Your task to perform on an android device: remove spam from my inbox in the gmail app Image 0: 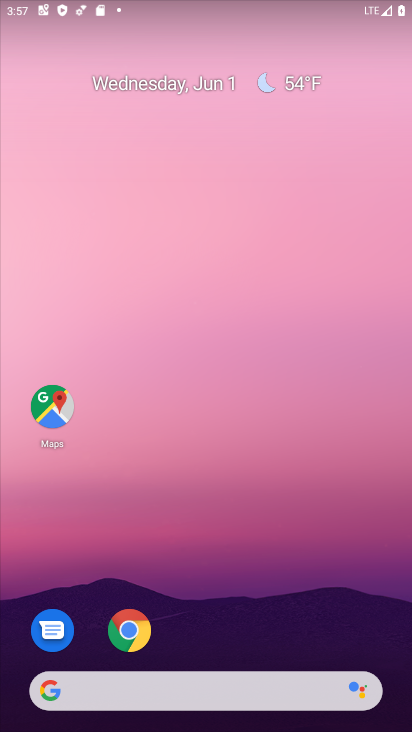
Step 0: drag from (285, 488) to (249, 62)
Your task to perform on an android device: remove spam from my inbox in the gmail app Image 1: 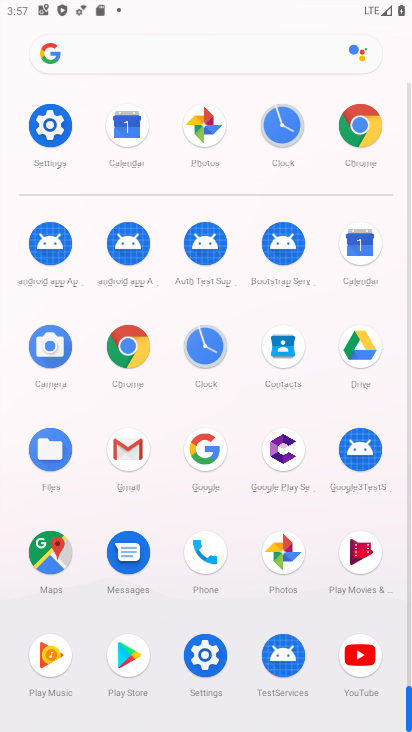
Step 1: drag from (16, 578) to (16, 211)
Your task to perform on an android device: remove spam from my inbox in the gmail app Image 2: 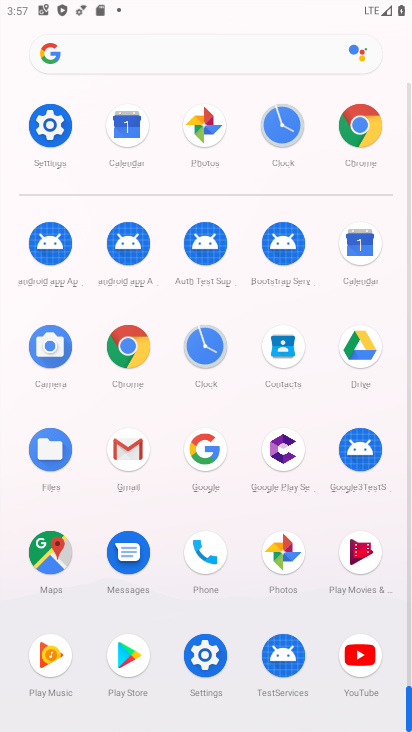
Step 2: click (127, 444)
Your task to perform on an android device: remove spam from my inbox in the gmail app Image 3: 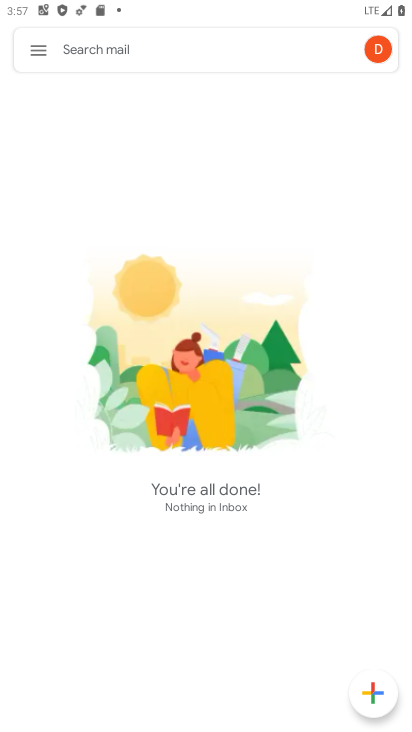
Step 3: click (45, 51)
Your task to perform on an android device: remove spam from my inbox in the gmail app Image 4: 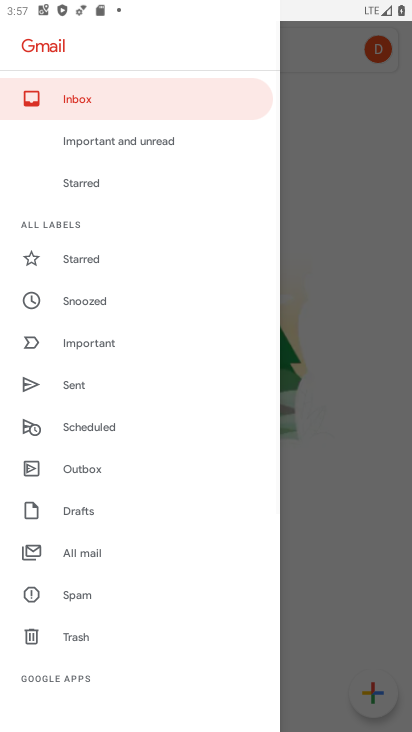
Step 4: click (108, 585)
Your task to perform on an android device: remove spam from my inbox in the gmail app Image 5: 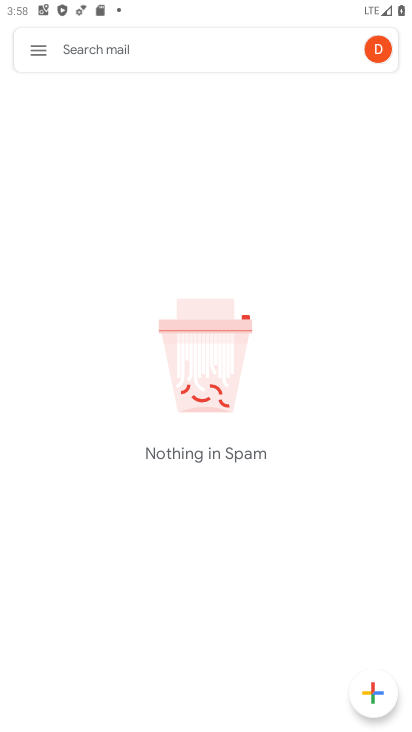
Step 5: task complete